Your task to perform on an android device: Go to sound settings Image 0: 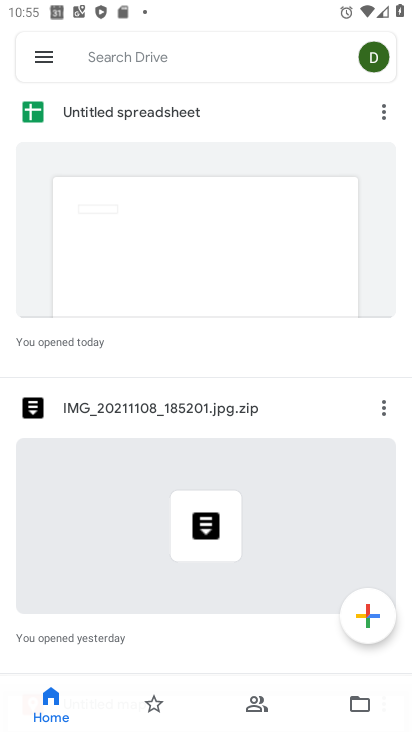
Step 0: press home button
Your task to perform on an android device: Go to sound settings Image 1: 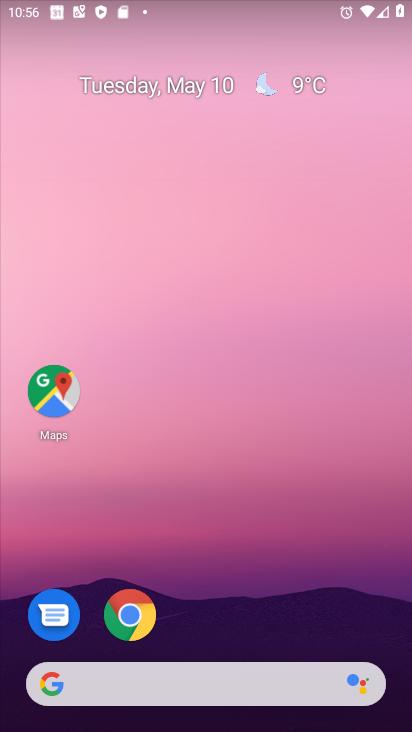
Step 1: drag from (227, 625) to (311, 91)
Your task to perform on an android device: Go to sound settings Image 2: 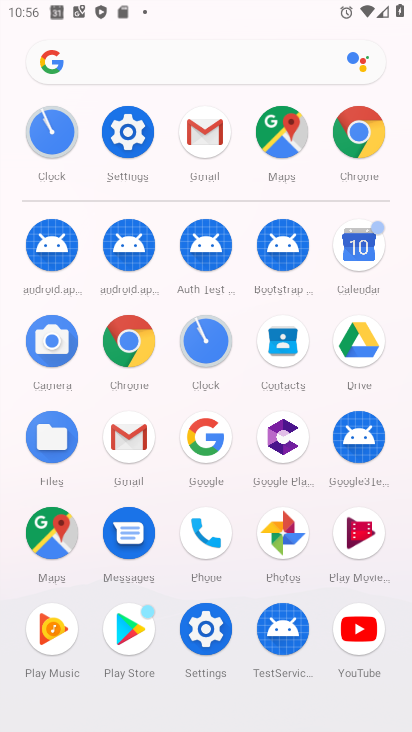
Step 2: click (135, 122)
Your task to perform on an android device: Go to sound settings Image 3: 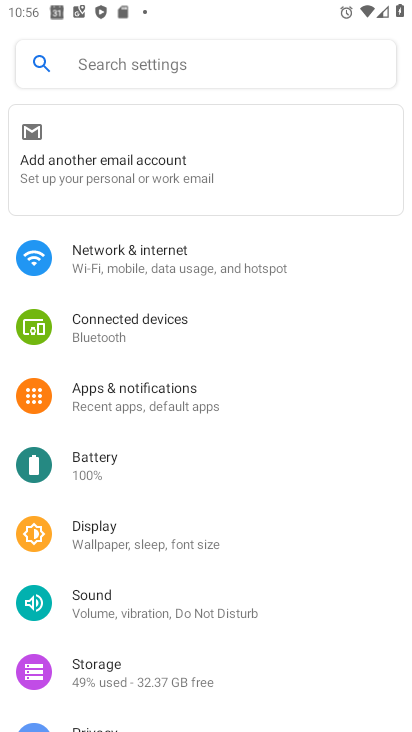
Step 3: click (121, 604)
Your task to perform on an android device: Go to sound settings Image 4: 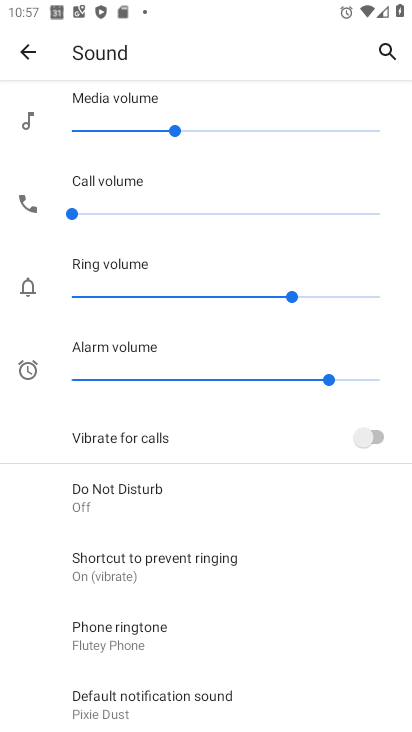
Step 4: task complete